Your task to perform on an android device: Is it going to rain today? Image 0: 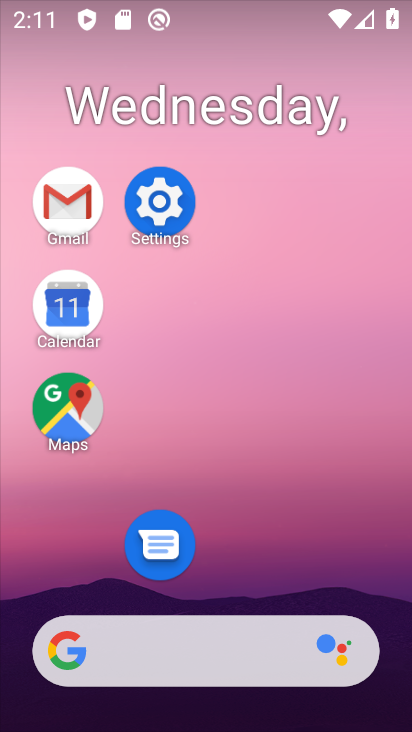
Step 0: drag from (273, 581) to (352, 125)
Your task to perform on an android device: Is it going to rain today? Image 1: 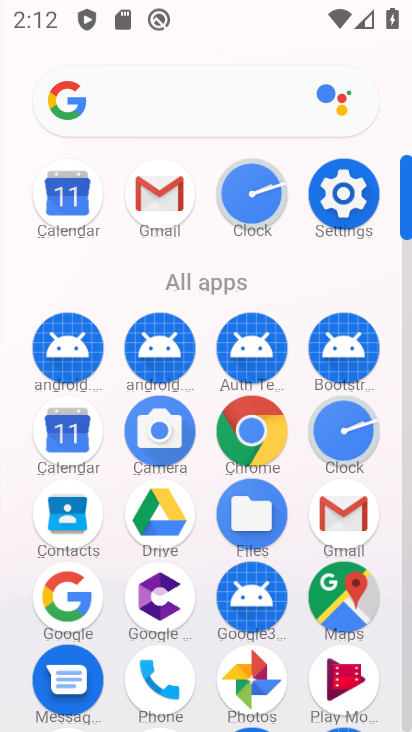
Step 1: drag from (211, 563) to (278, 169)
Your task to perform on an android device: Is it going to rain today? Image 2: 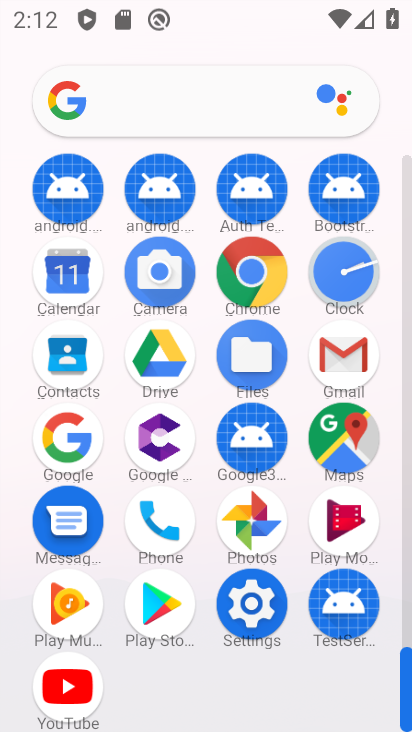
Step 2: click (75, 443)
Your task to perform on an android device: Is it going to rain today? Image 3: 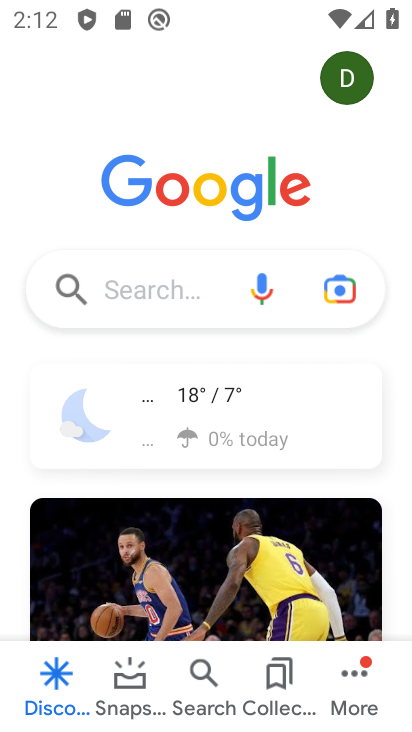
Step 3: click (211, 386)
Your task to perform on an android device: Is it going to rain today? Image 4: 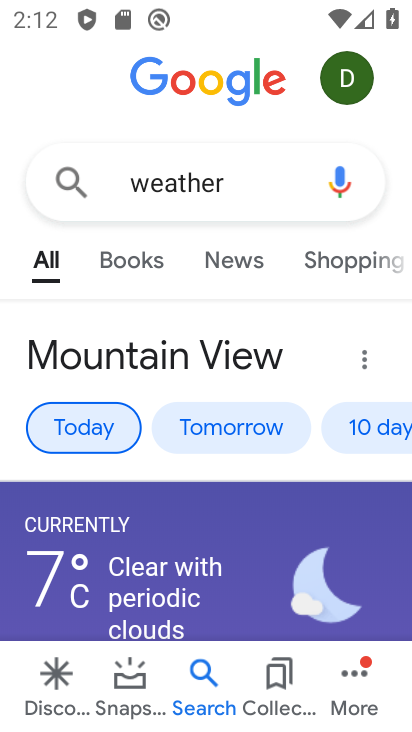
Step 4: task complete